Your task to perform on an android device: turn on data saver in the chrome app Image 0: 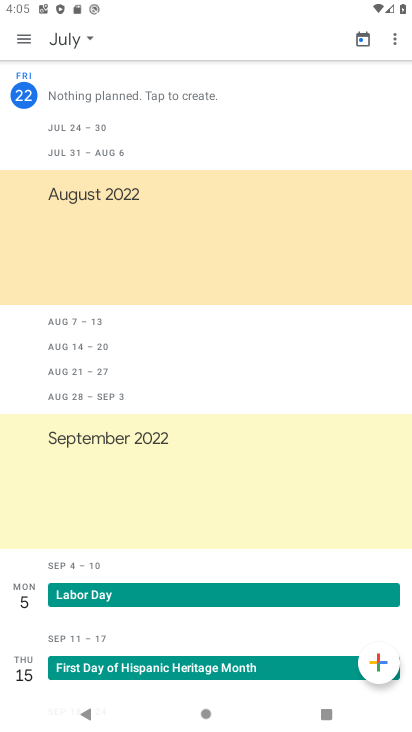
Step 0: press home button
Your task to perform on an android device: turn on data saver in the chrome app Image 1: 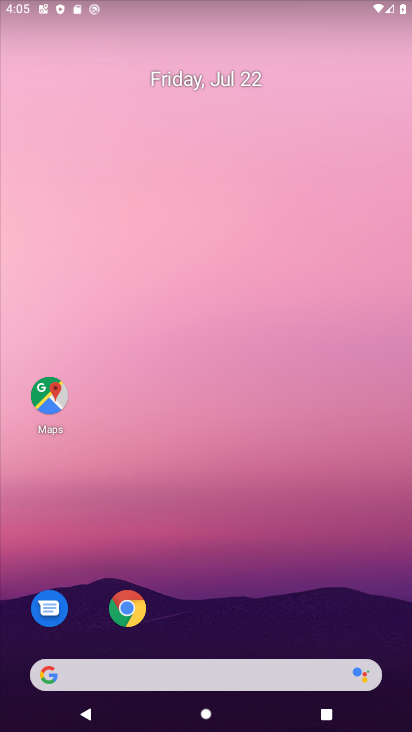
Step 1: drag from (228, 718) to (219, 372)
Your task to perform on an android device: turn on data saver in the chrome app Image 2: 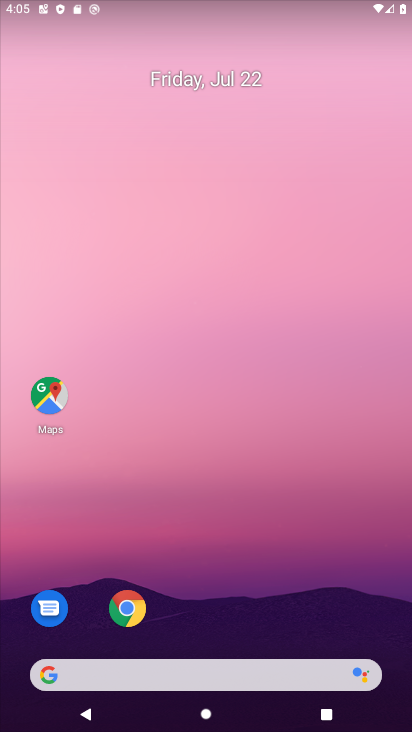
Step 2: drag from (242, 728) to (268, 46)
Your task to perform on an android device: turn on data saver in the chrome app Image 3: 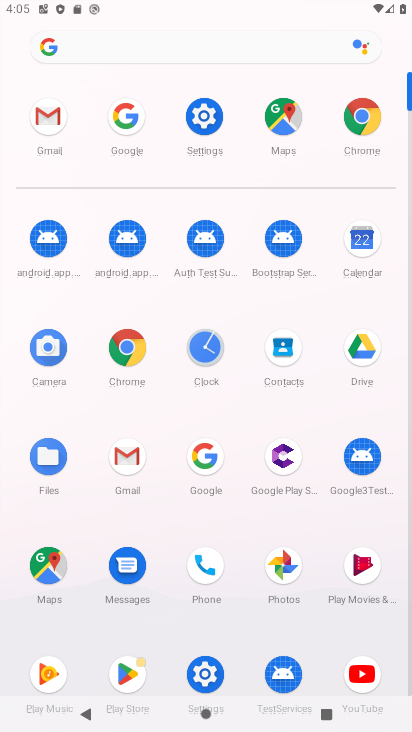
Step 3: click (128, 357)
Your task to perform on an android device: turn on data saver in the chrome app Image 4: 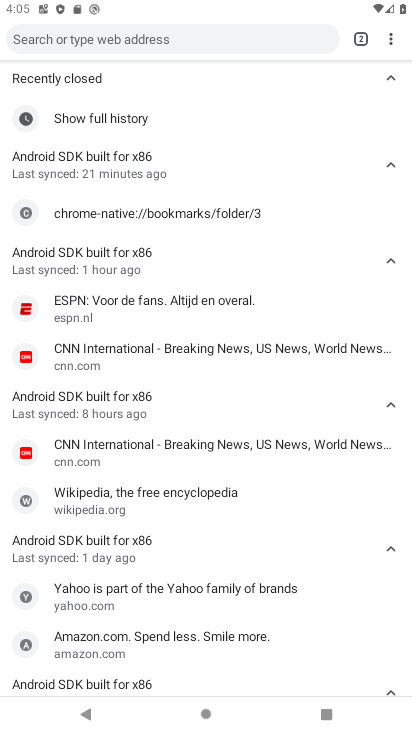
Step 4: click (390, 42)
Your task to perform on an android device: turn on data saver in the chrome app Image 5: 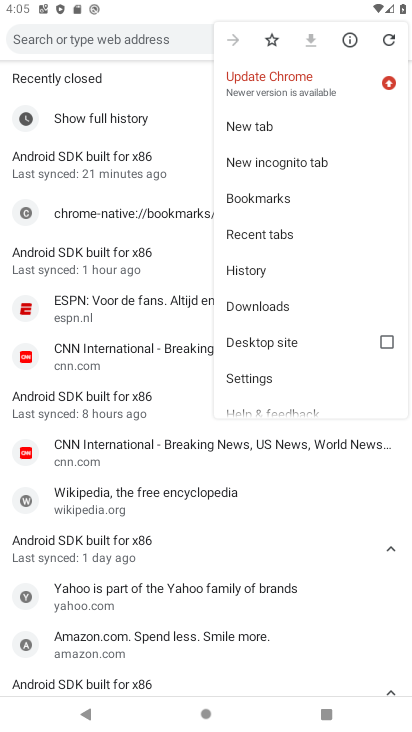
Step 5: click (256, 375)
Your task to perform on an android device: turn on data saver in the chrome app Image 6: 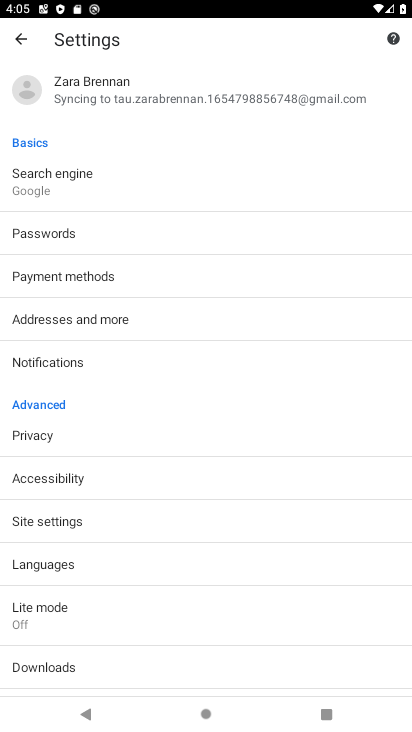
Step 6: click (35, 608)
Your task to perform on an android device: turn on data saver in the chrome app Image 7: 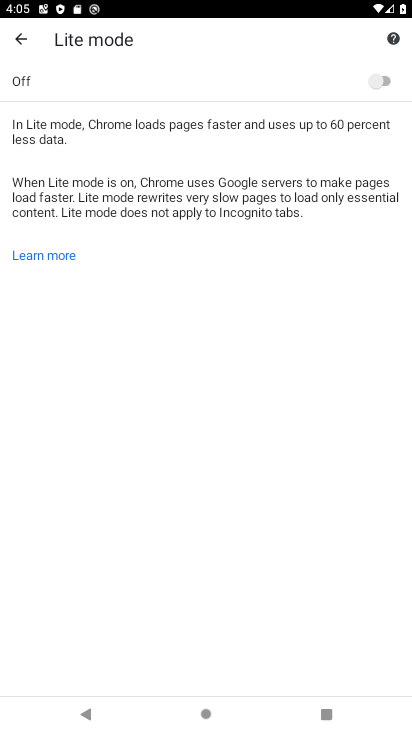
Step 7: click (390, 85)
Your task to perform on an android device: turn on data saver in the chrome app Image 8: 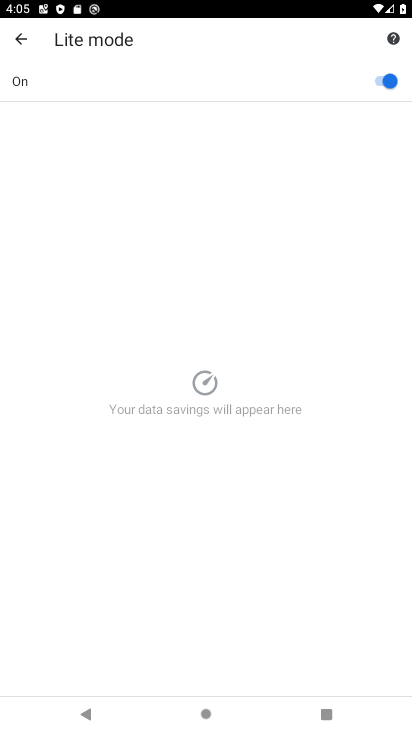
Step 8: task complete